Your task to perform on an android device: Open Maps and search for coffee Image 0: 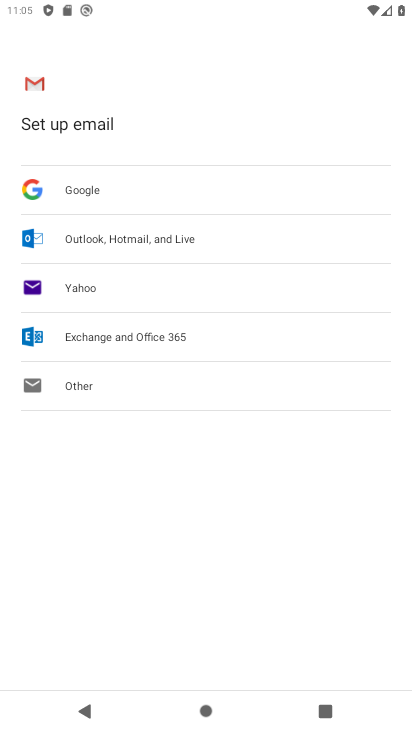
Step 0: press home button
Your task to perform on an android device: Open Maps and search for coffee Image 1: 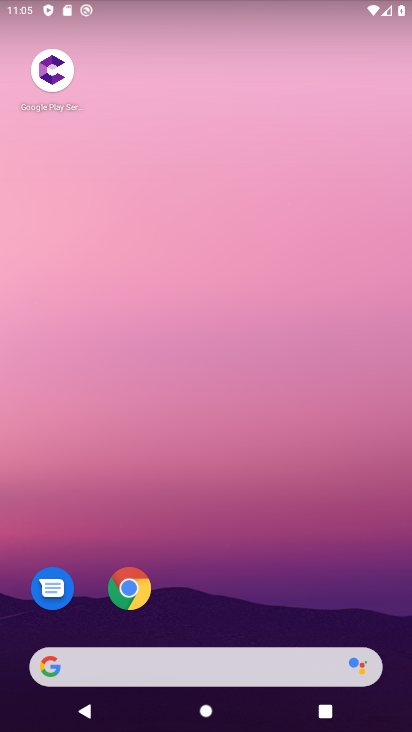
Step 1: drag from (236, 589) to (323, 46)
Your task to perform on an android device: Open Maps and search for coffee Image 2: 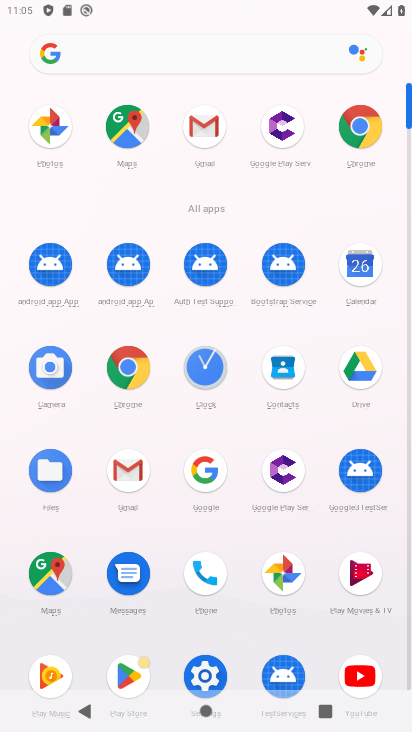
Step 2: click (52, 567)
Your task to perform on an android device: Open Maps and search for coffee Image 3: 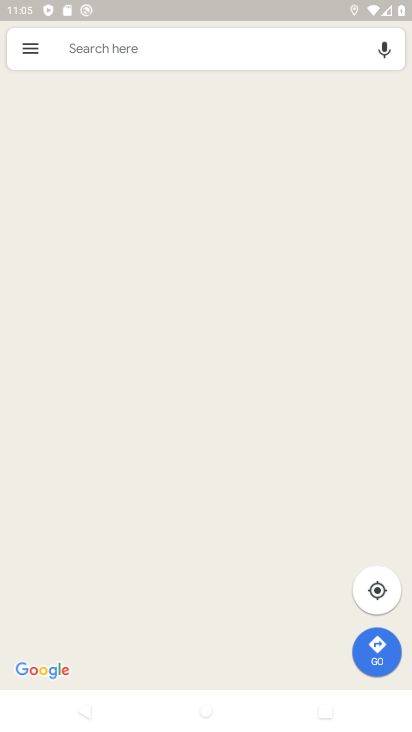
Step 3: click (168, 46)
Your task to perform on an android device: Open Maps and search for coffee Image 4: 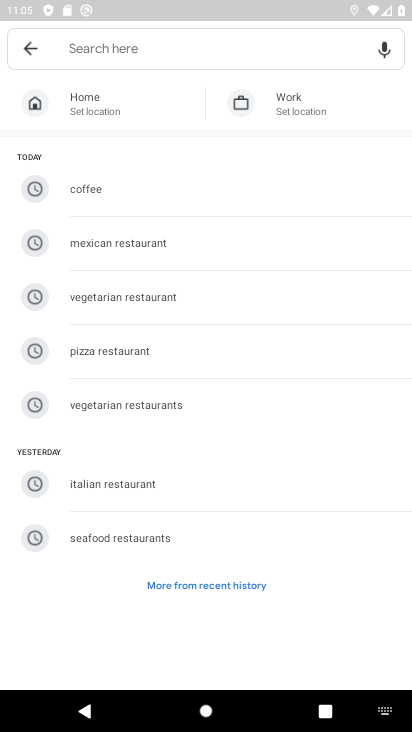
Step 4: type " coffee"
Your task to perform on an android device: Open Maps and search for coffee Image 5: 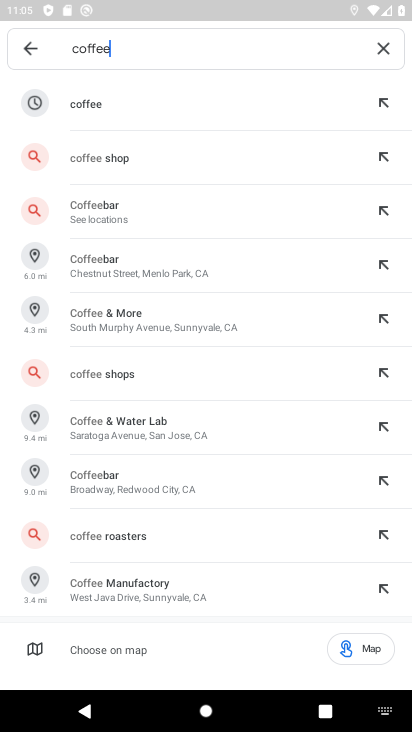
Step 5: click (120, 105)
Your task to perform on an android device: Open Maps and search for coffee Image 6: 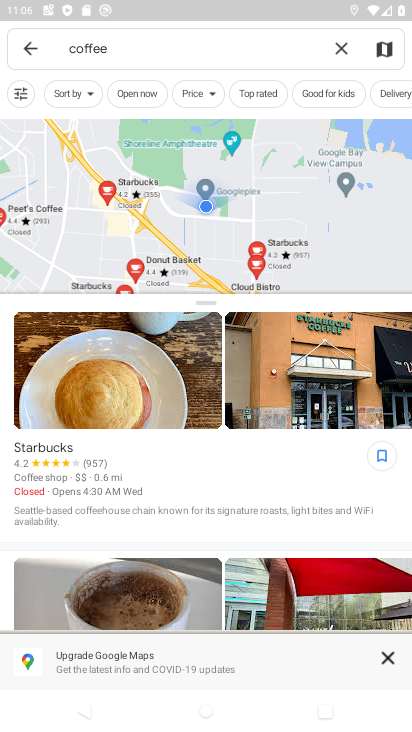
Step 6: task complete